Your task to perform on an android device: Open ESPN.com Image 0: 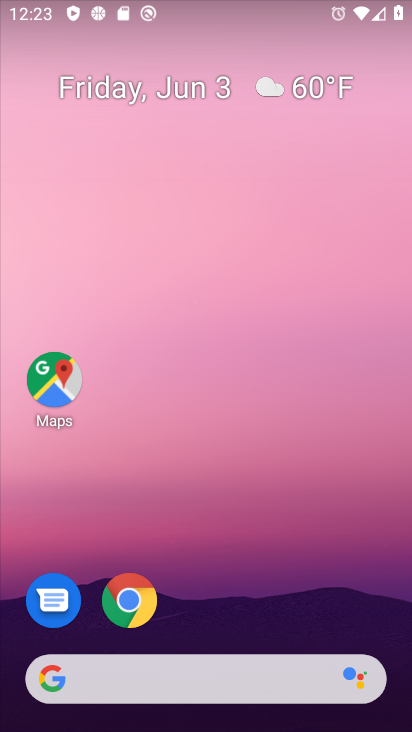
Step 0: click (133, 598)
Your task to perform on an android device: Open ESPN.com Image 1: 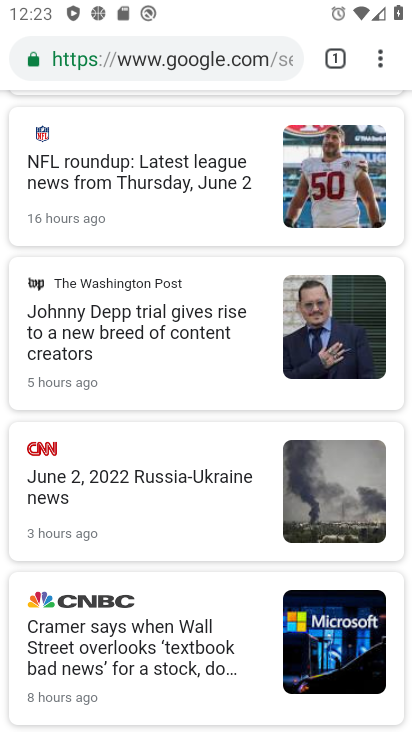
Step 1: click (189, 64)
Your task to perform on an android device: Open ESPN.com Image 2: 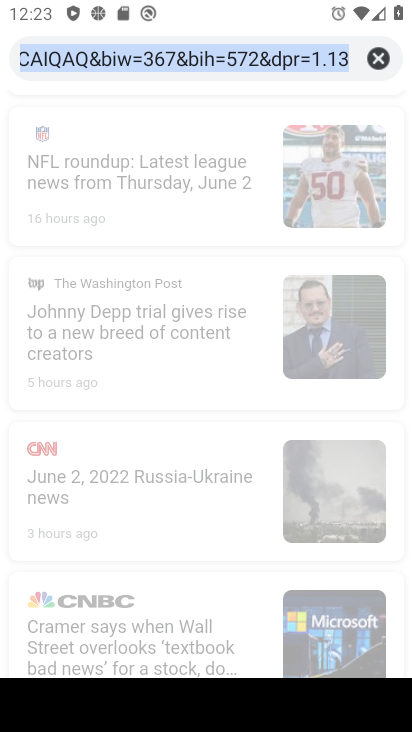
Step 2: type "espn.com"
Your task to perform on an android device: Open ESPN.com Image 3: 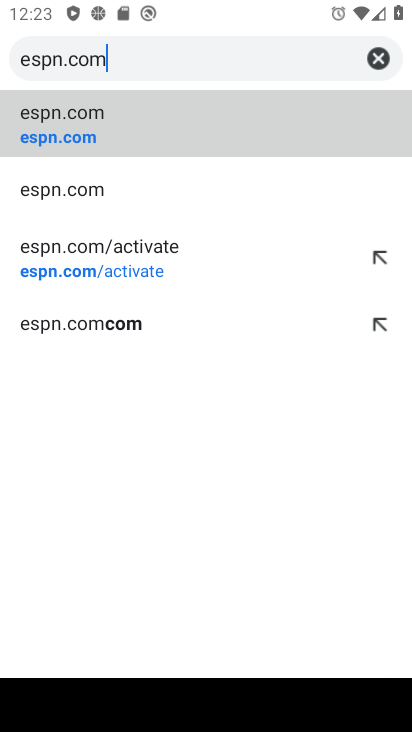
Step 3: click (37, 133)
Your task to perform on an android device: Open ESPN.com Image 4: 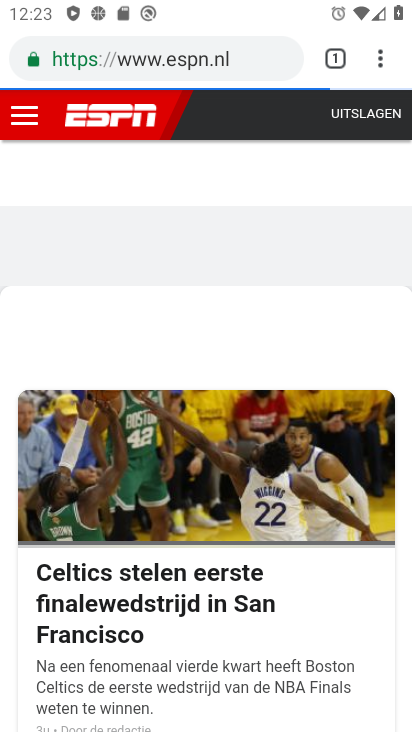
Step 4: task complete